Your task to perform on an android device: What is the recent news? Image 0: 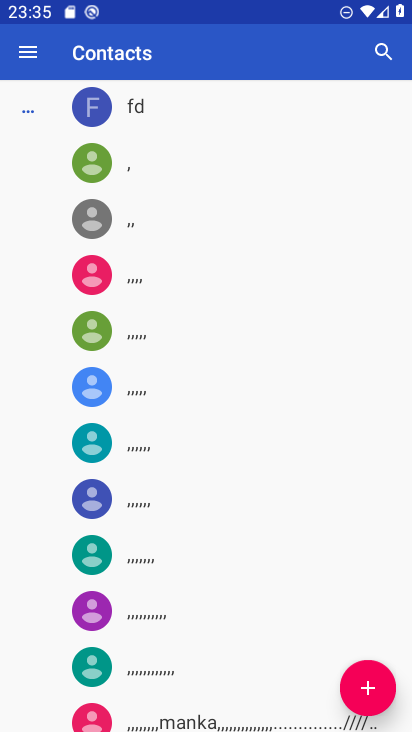
Step 0: press home button
Your task to perform on an android device: What is the recent news? Image 1: 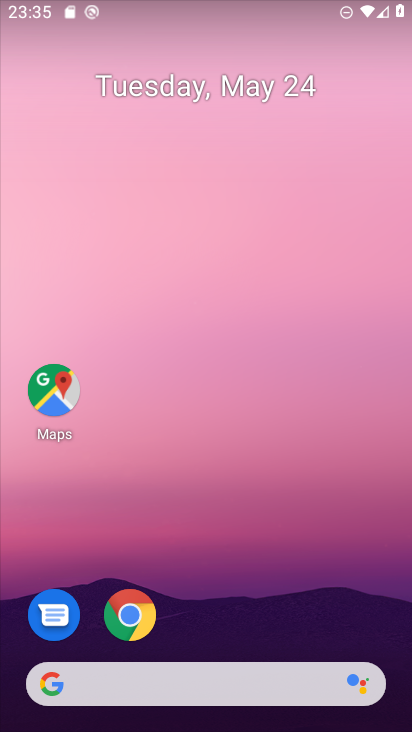
Step 1: click (250, 691)
Your task to perform on an android device: What is the recent news? Image 2: 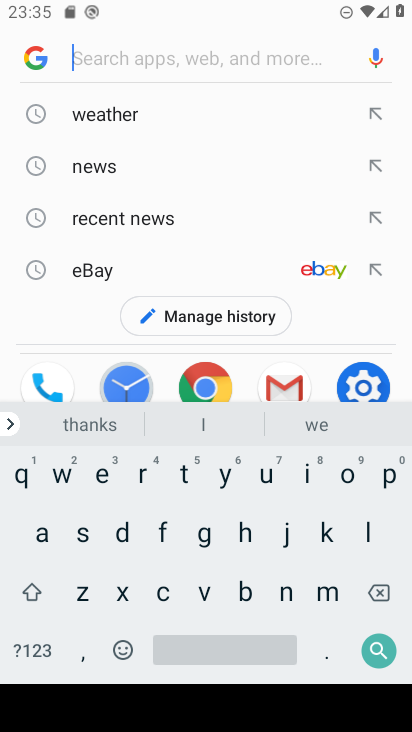
Step 2: click (176, 221)
Your task to perform on an android device: What is the recent news? Image 3: 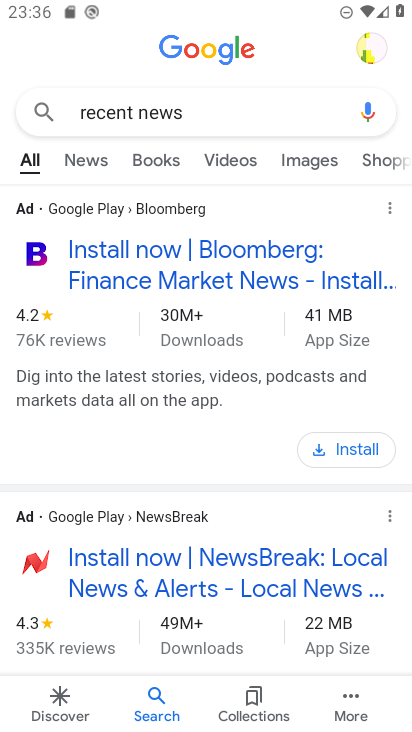
Step 3: task complete